Your task to perform on an android device: Check the news Image 0: 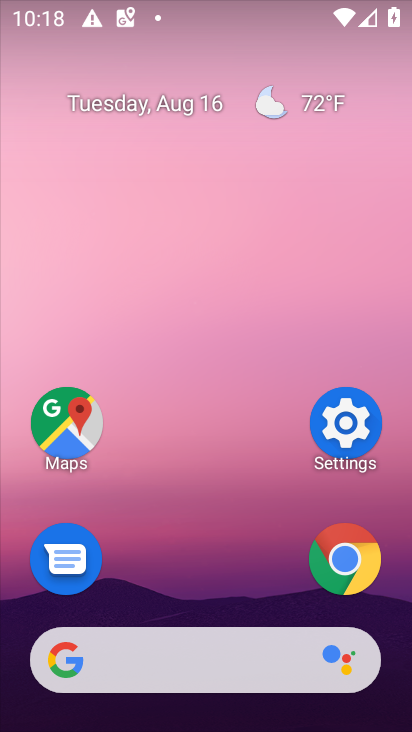
Step 0: click (169, 646)
Your task to perform on an android device: Check the news Image 1: 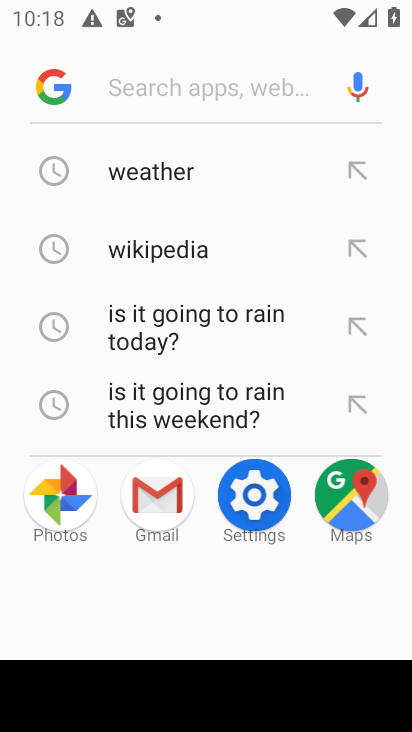
Step 1: type "news"
Your task to perform on an android device: Check the news Image 2: 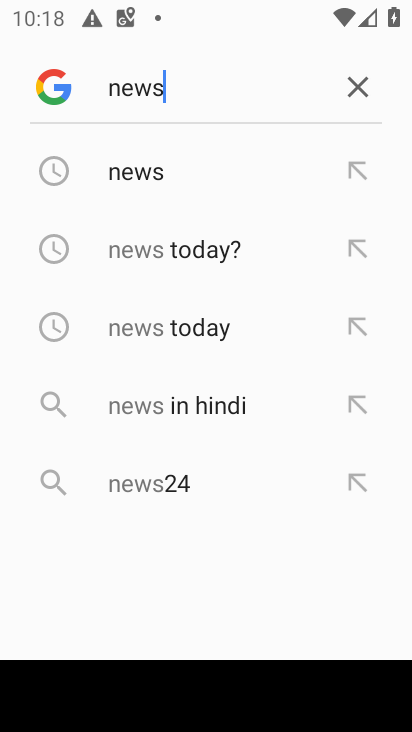
Step 2: click (147, 173)
Your task to perform on an android device: Check the news Image 3: 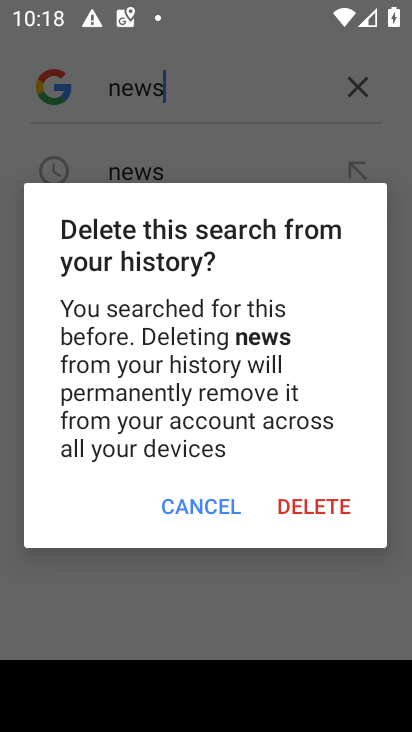
Step 3: click (225, 517)
Your task to perform on an android device: Check the news Image 4: 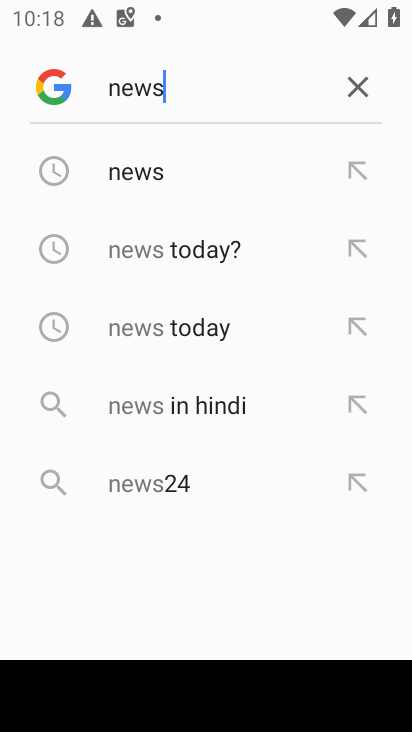
Step 4: click (116, 171)
Your task to perform on an android device: Check the news Image 5: 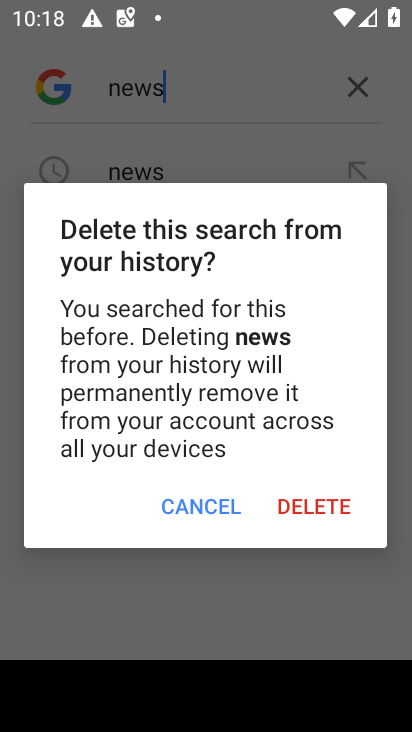
Step 5: click (169, 502)
Your task to perform on an android device: Check the news Image 6: 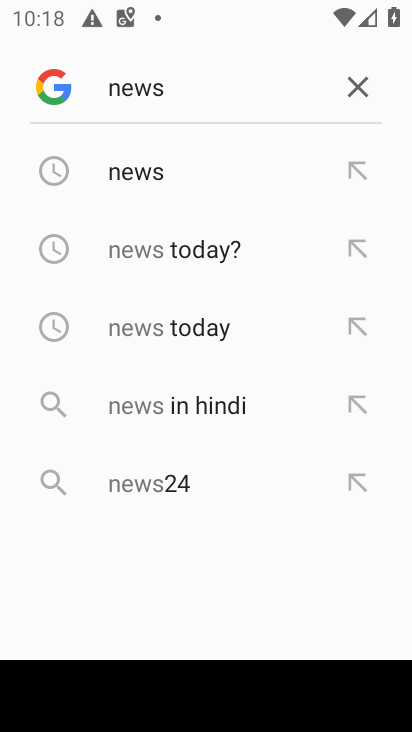
Step 6: click (117, 168)
Your task to perform on an android device: Check the news Image 7: 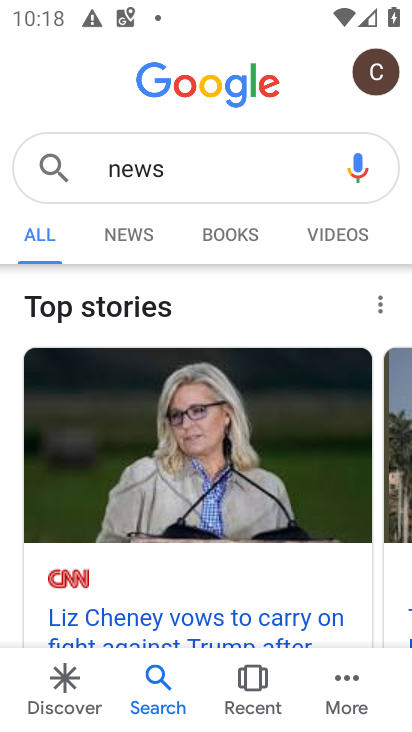
Step 7: click (127, 227)
Your task to perform on an android device: Check the news Image 8: 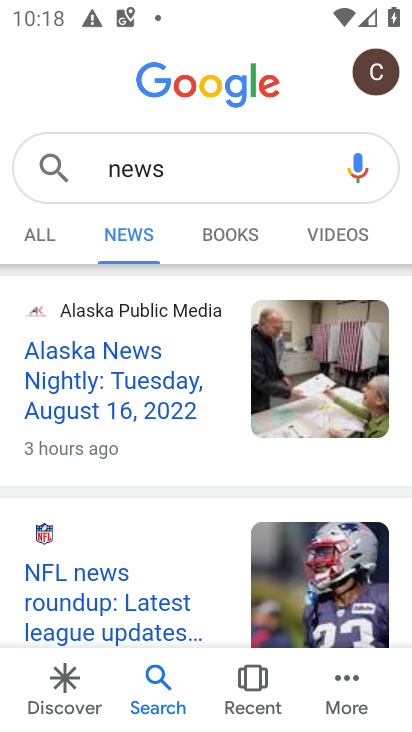
Step 8: task complete